Your task to perform on an android device: Open eBay Image 0: 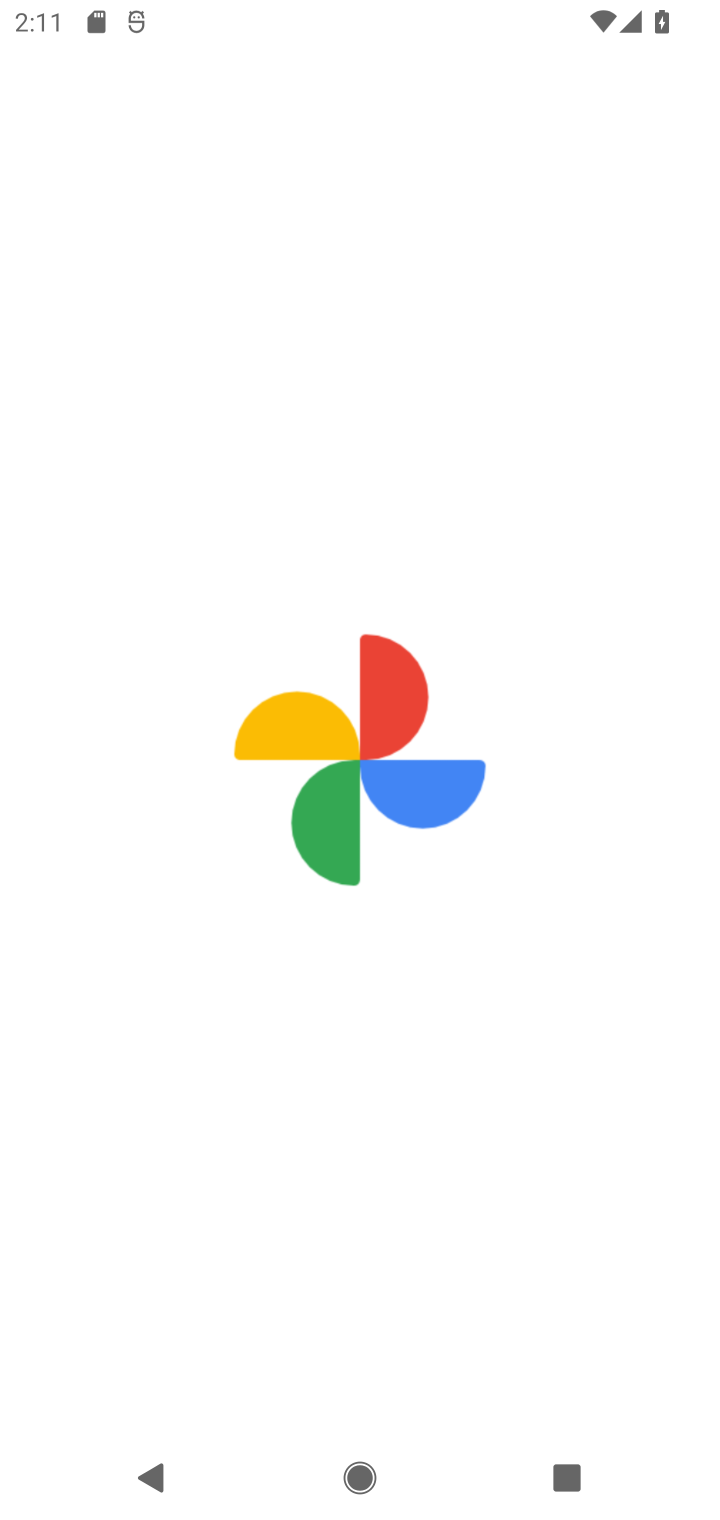
Step 0: press home button
Your task to perform on an android device: Open eBay Image 1: 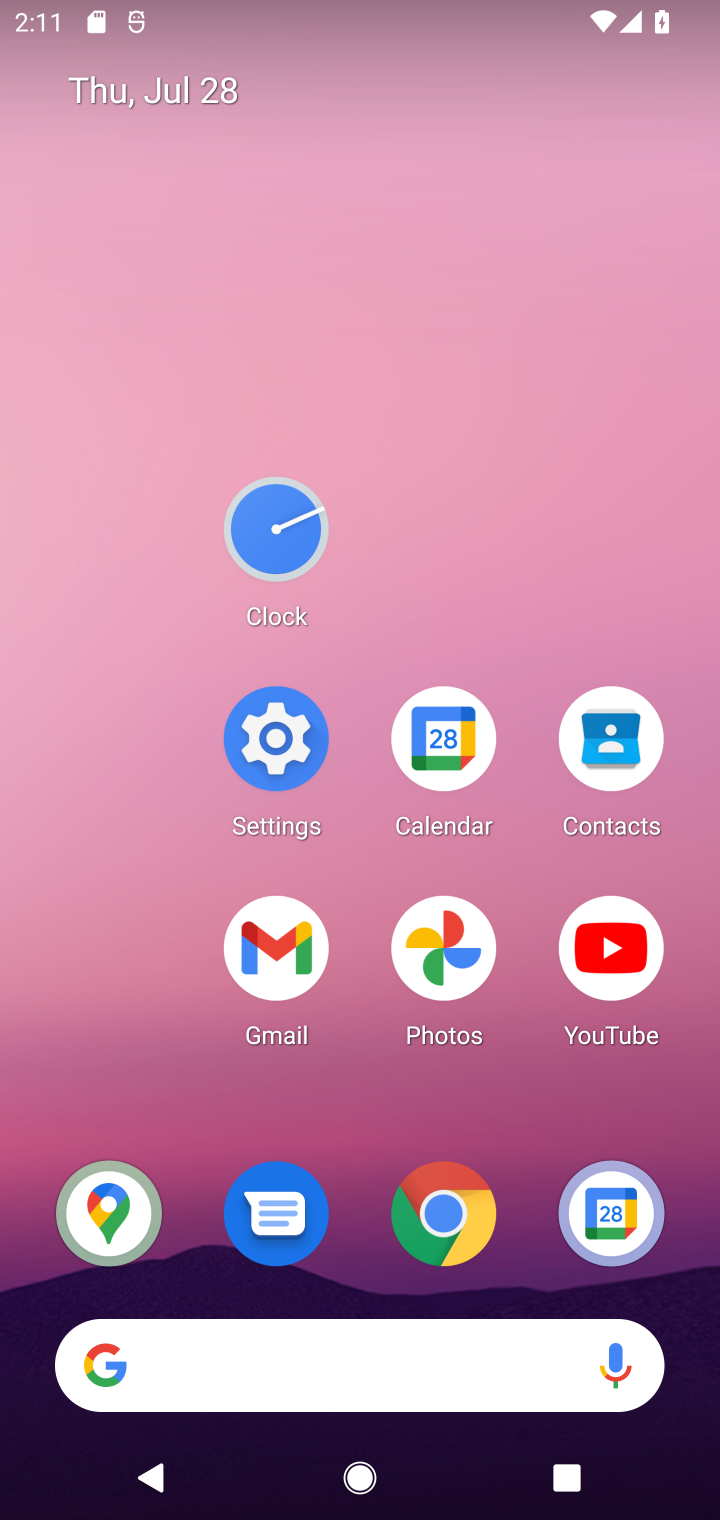
Step 1: click (431, 1215)
Your task to perform on an android device: Open eBay Image 2: 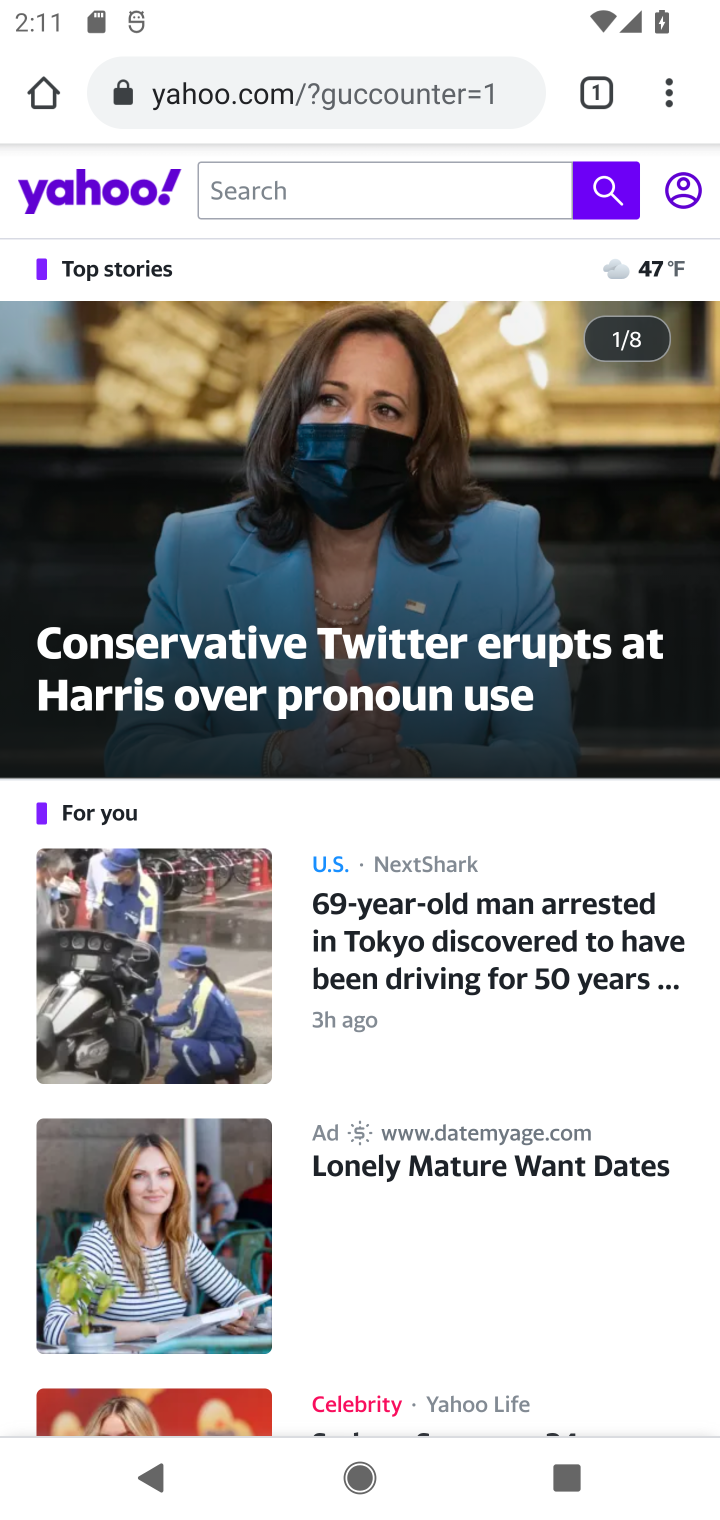
Step 2: click (671, 100)
Your task to perform on an android device: Open eBay Image 3: 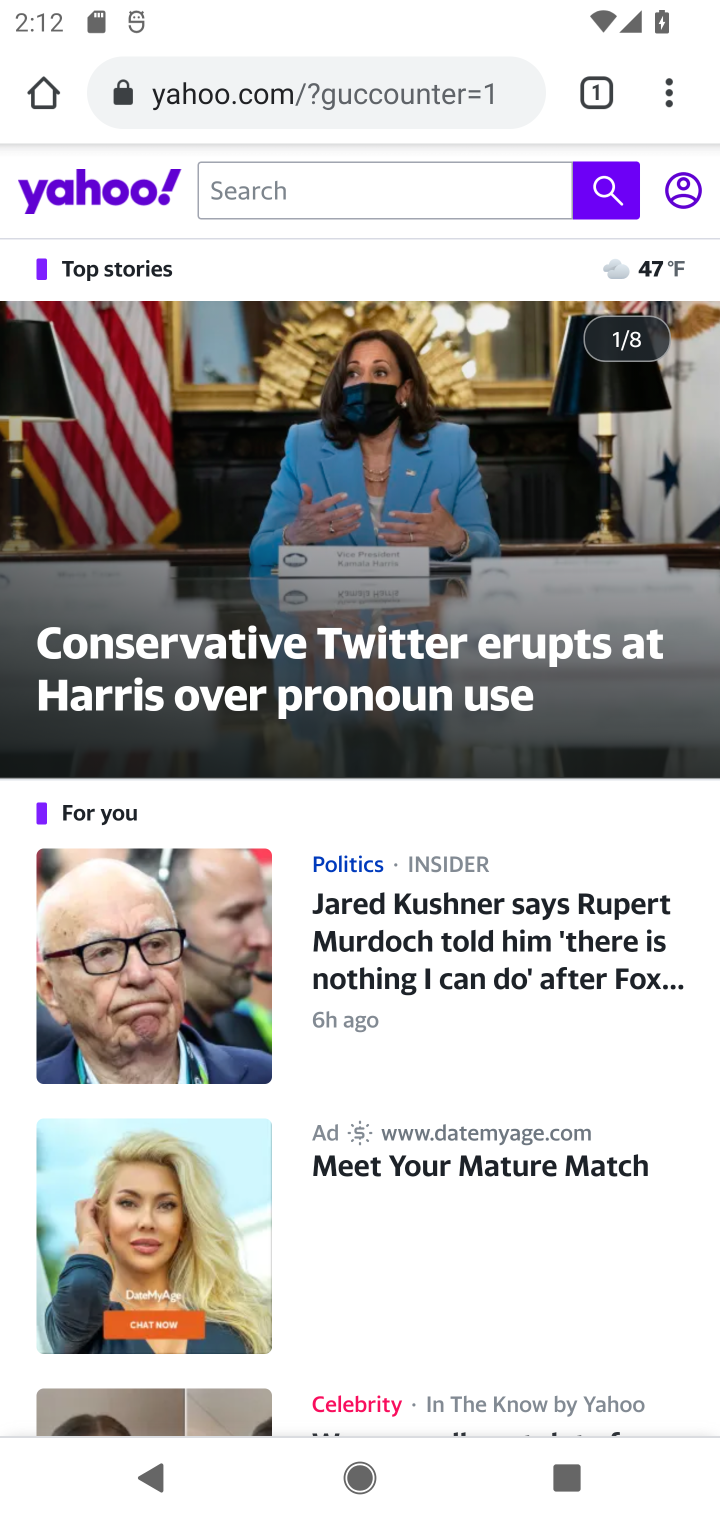
Step 3: click (670, 85)
Your task to perform on an android device: Open eBay Image 4: 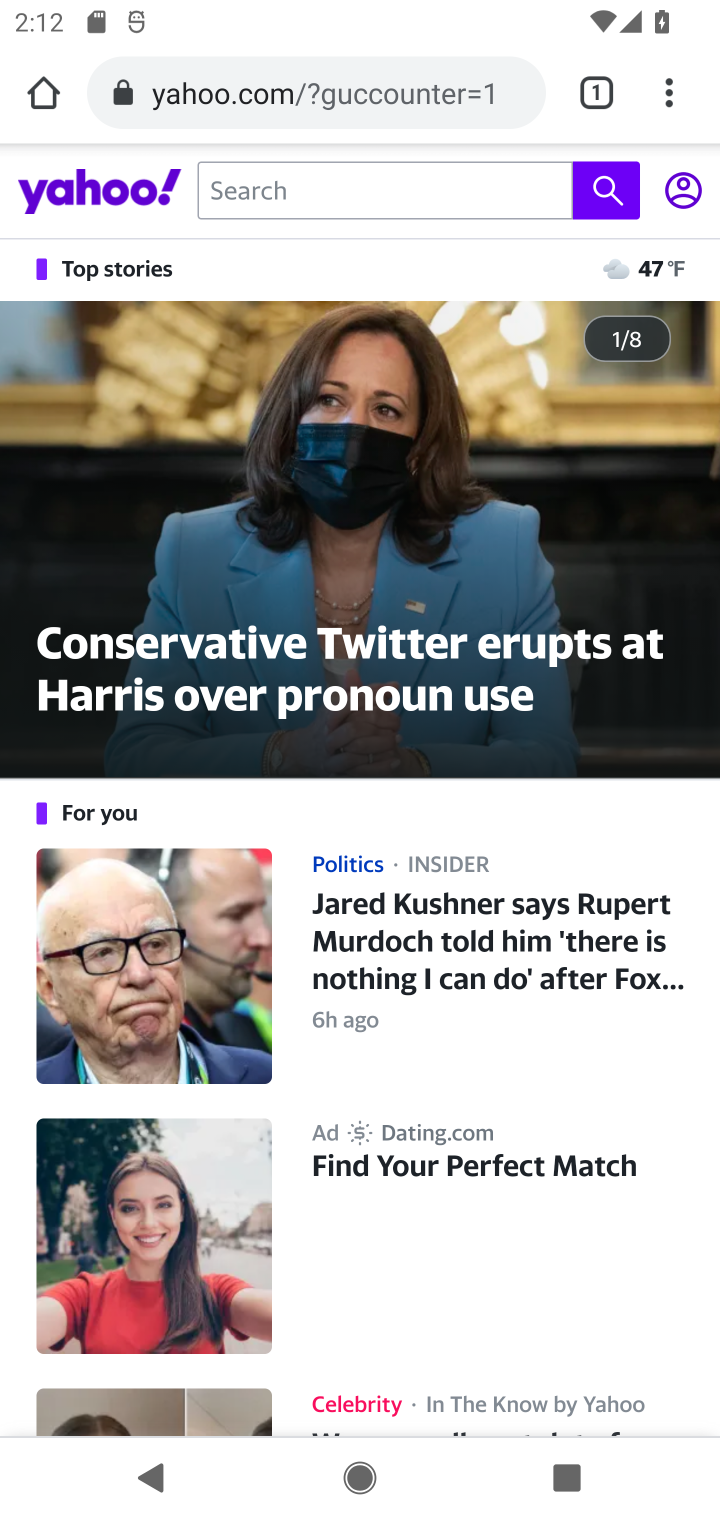
Step 4: click (685, 85)
Your task to perform on an android device: Open eBay Image 5: 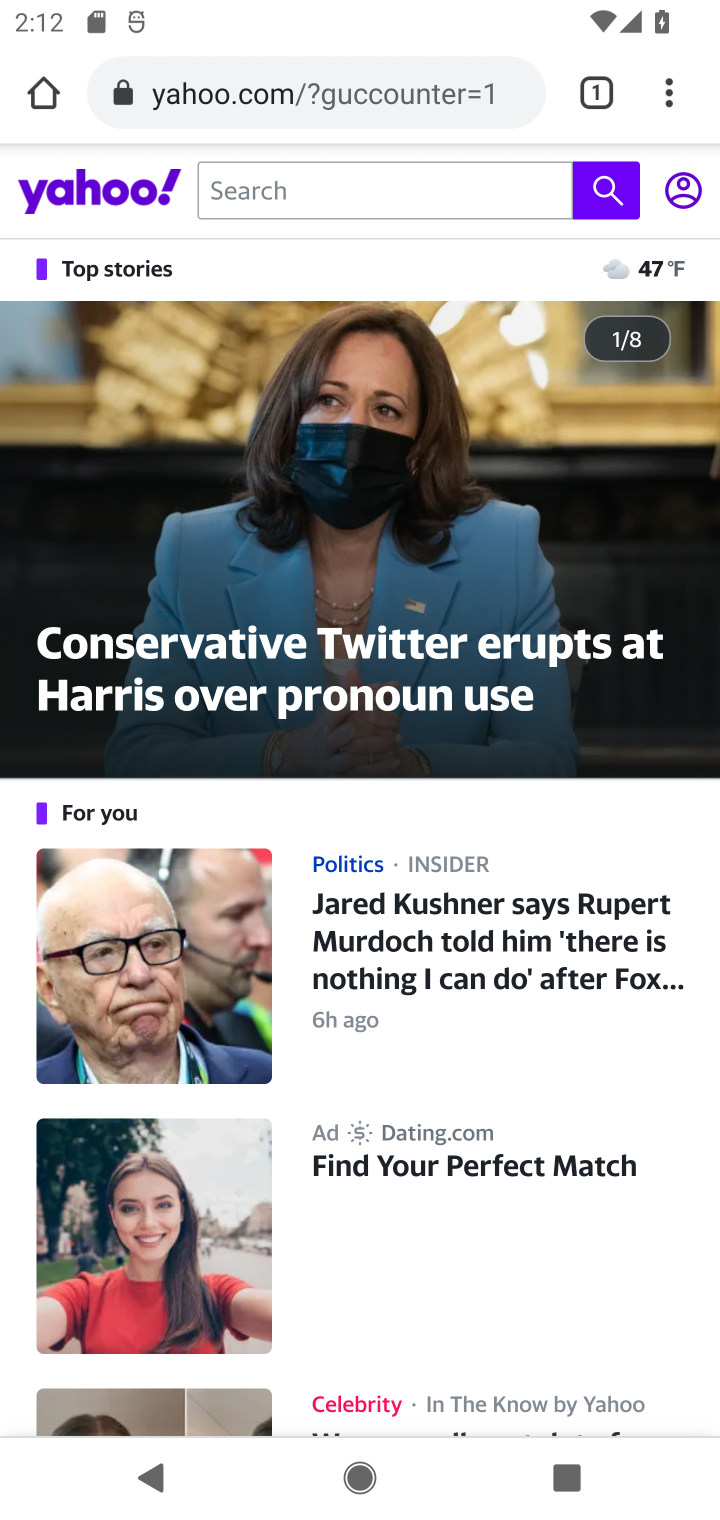
Step 5: click (670, 92)
Your task to perform on an android device: Open eBay Image 6: 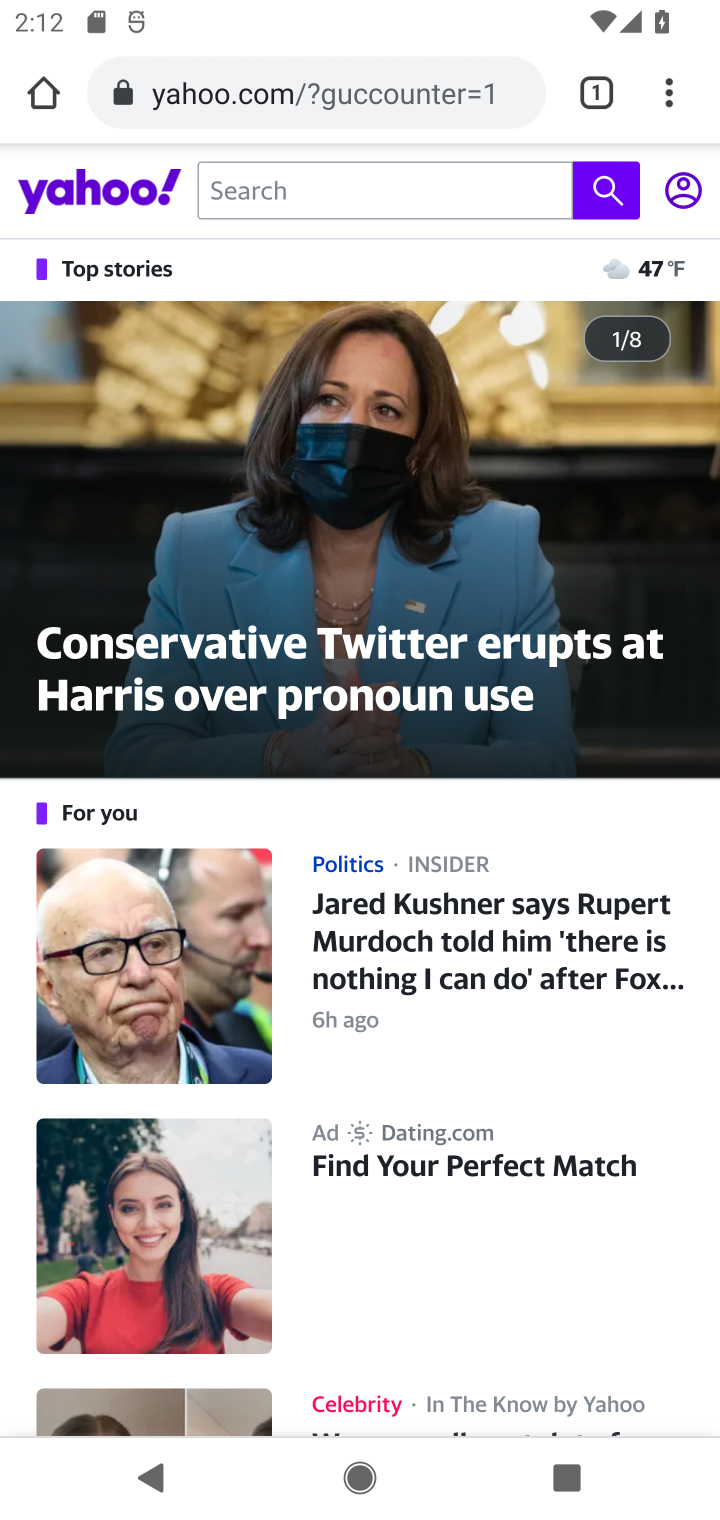
Step 6: click (690, 92)
Your task to perform on an android device: Open eBay Image 7: 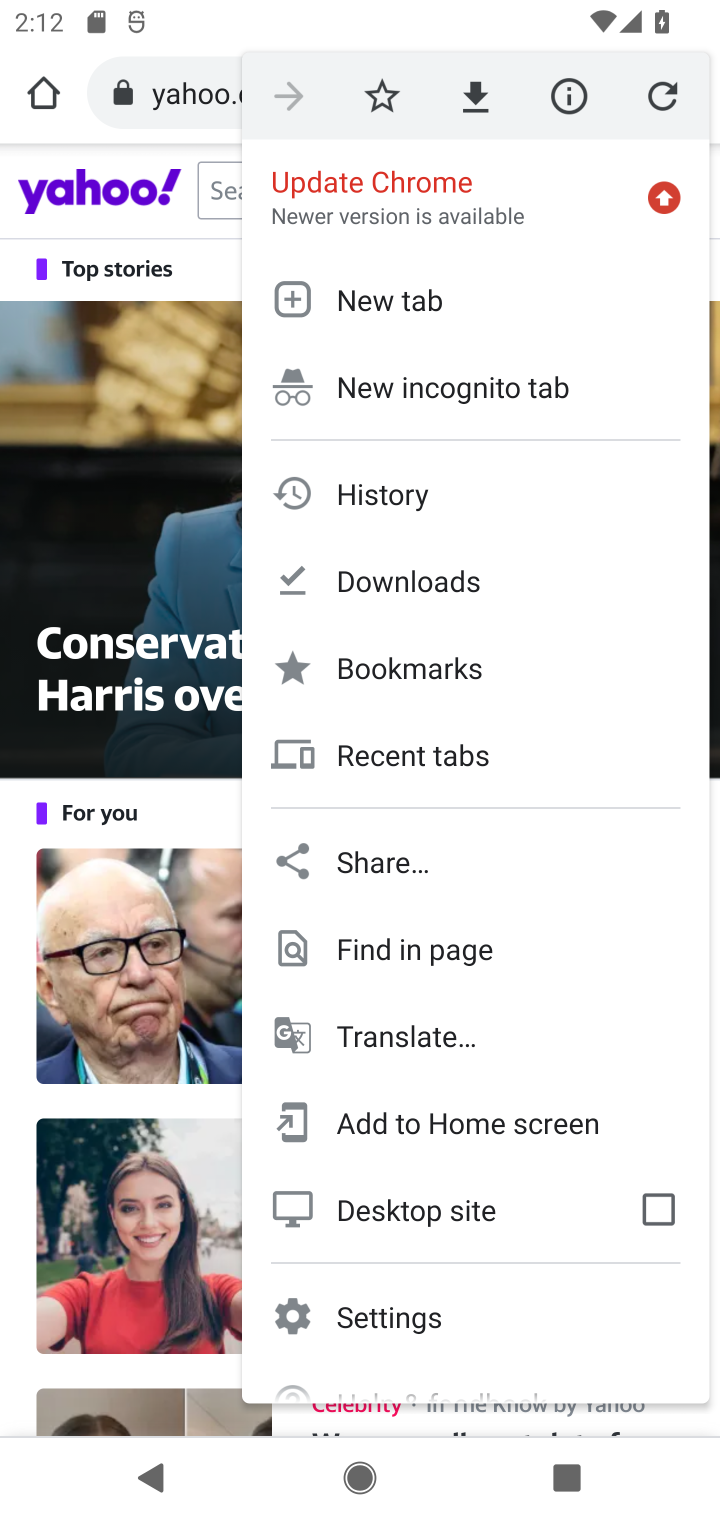
Step 7: click (409, 295)
Your task to perform on an android device: Open eBay Image 8: 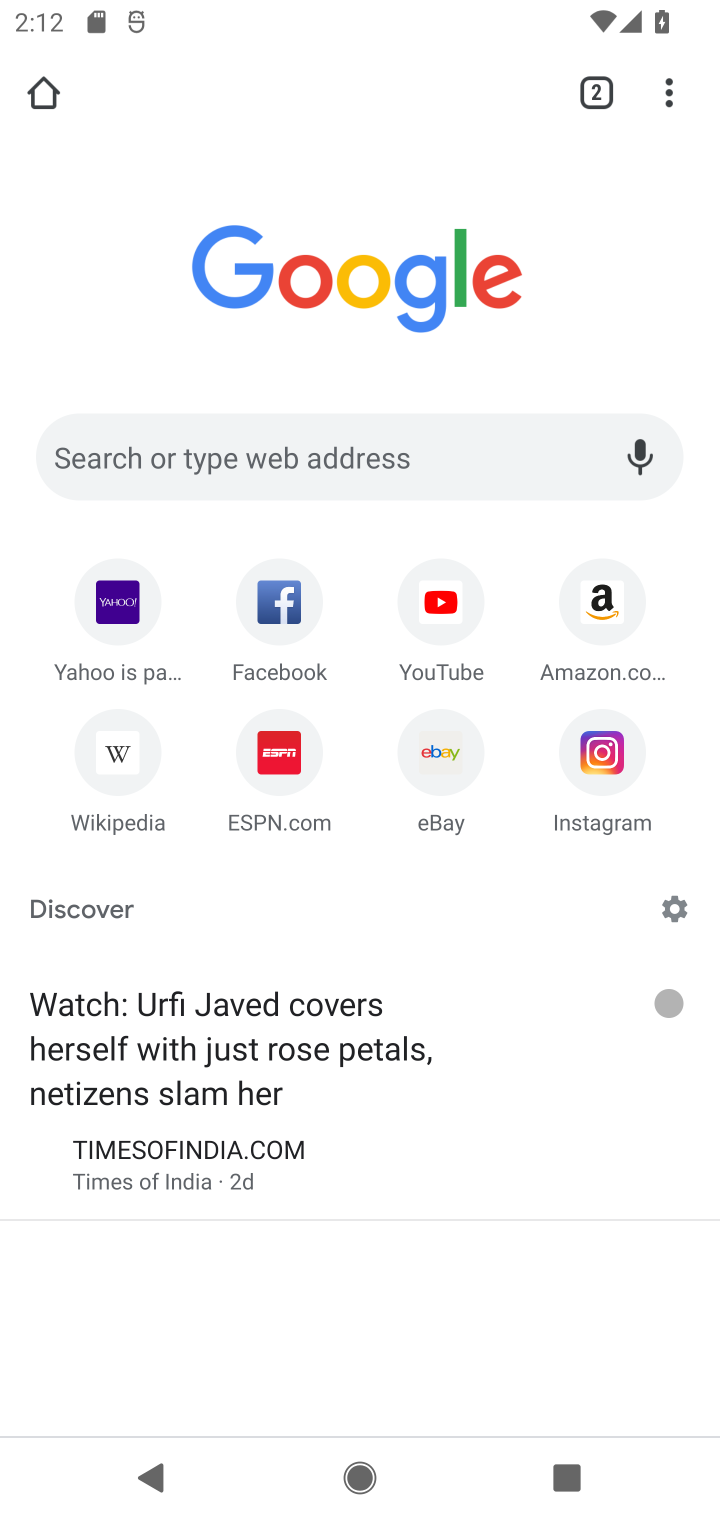
Step 8: click (409, 295)
Your task to perform on an android device: Open eBay Image 9: 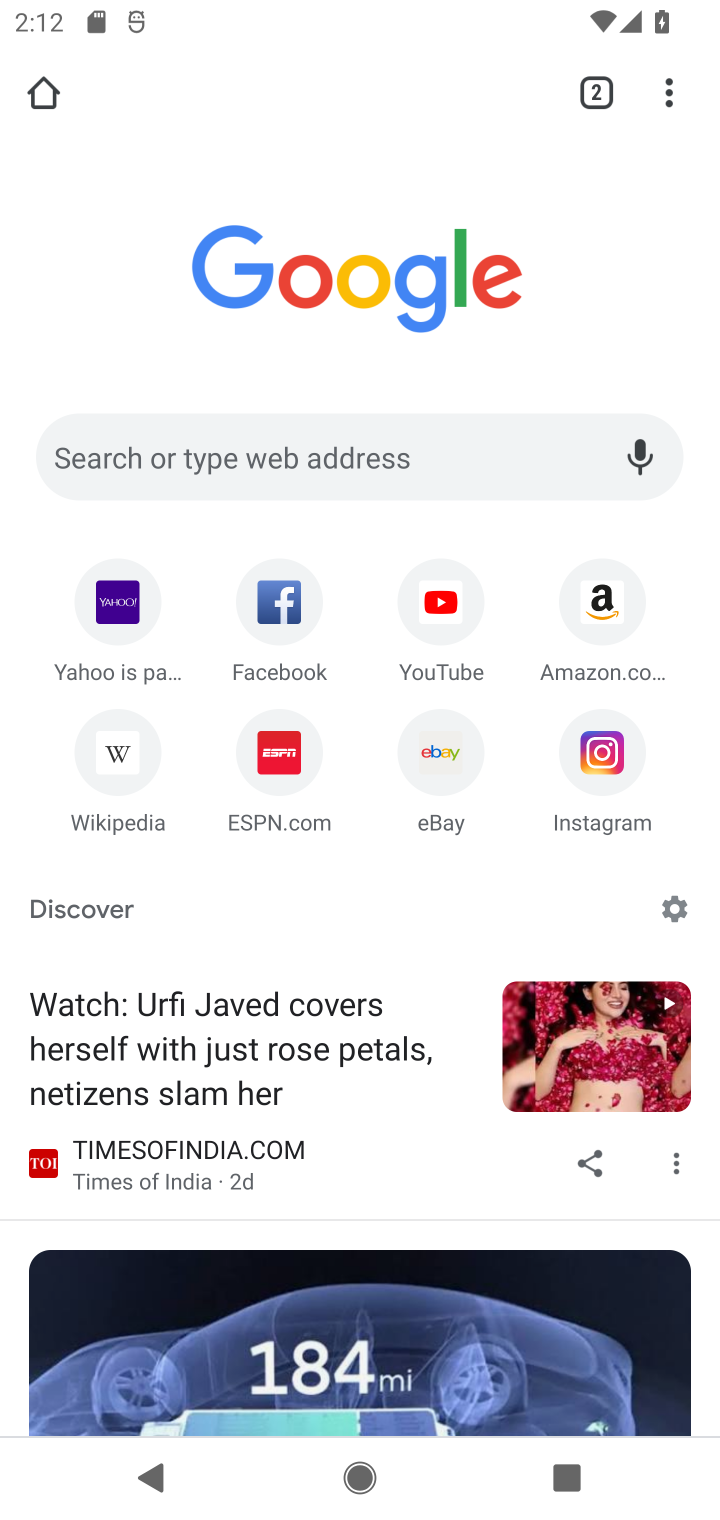
Step 9: click (430, 736)
Your task to perform on an android device: Open eBay Image 10: 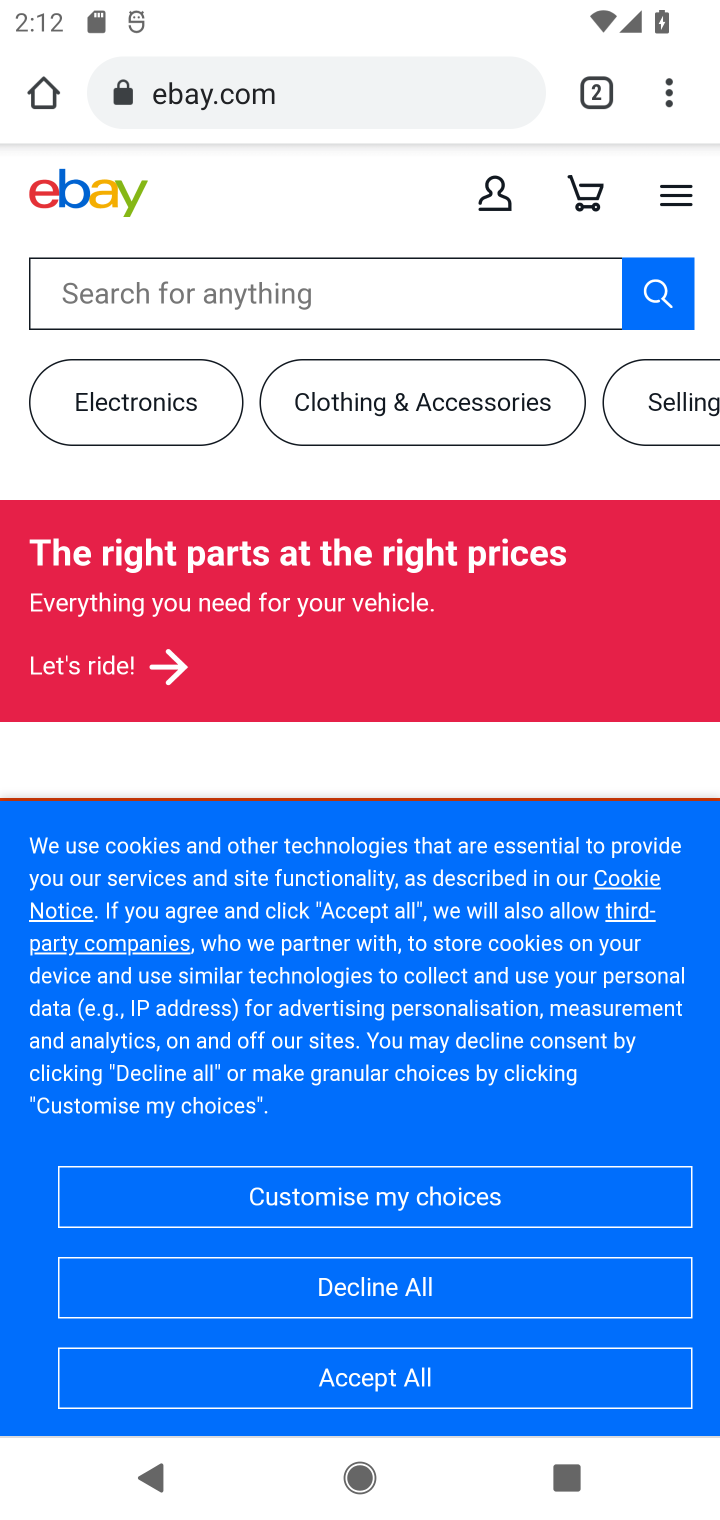
Step 10: task complete